Your task to perform on an android device: open sync settings in chrome Image 0: 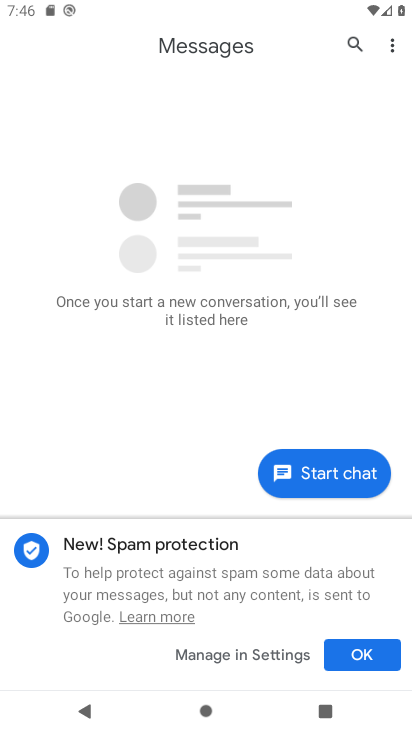
Step 0: press home button
Your task to perform on an android device: open sync settings in chrome Image 1: 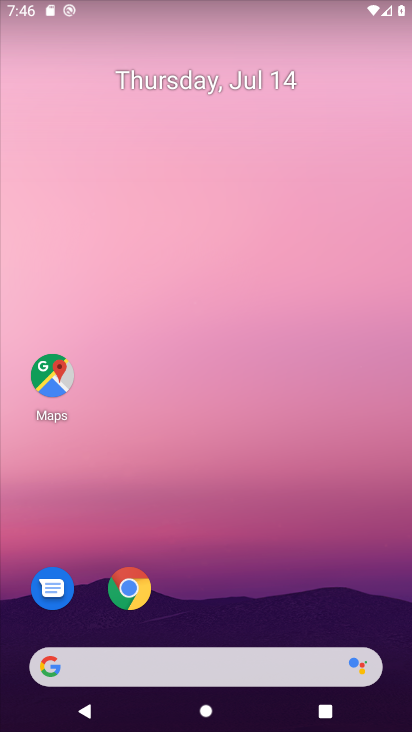
Step 1: drag from (174, 632) to (138, 49)
Your task to perform on an android device: open sync settings in chrome Image 2: 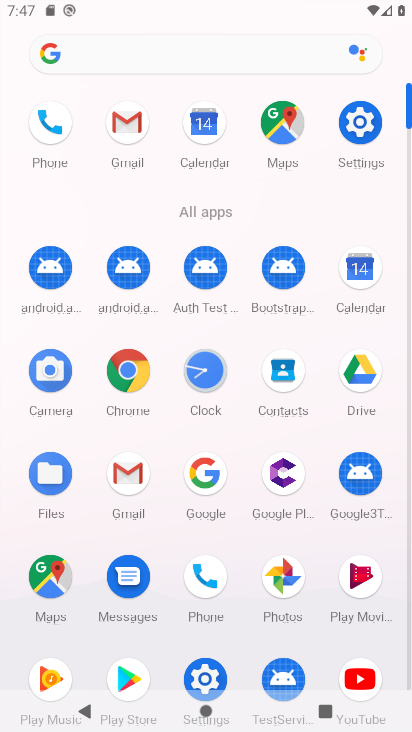
Step 2: click (128, 375)
Your task to perform on an android device: open sync settings in chrome Image 3: 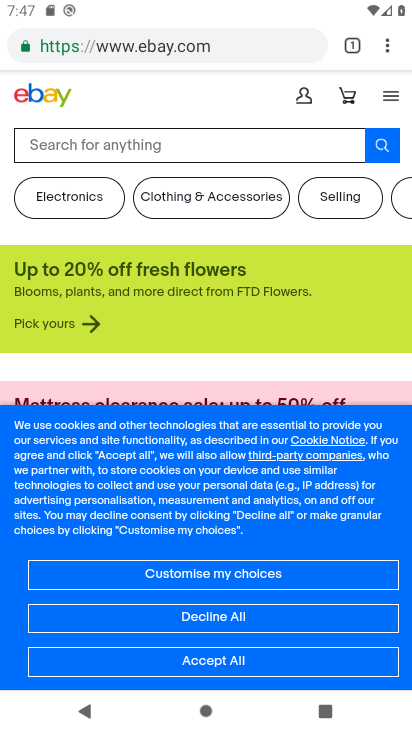
Step 3: drag from (385, 50) to (222, 550)
Your task to perform on an android device: open sync settings in chrome Image 4: 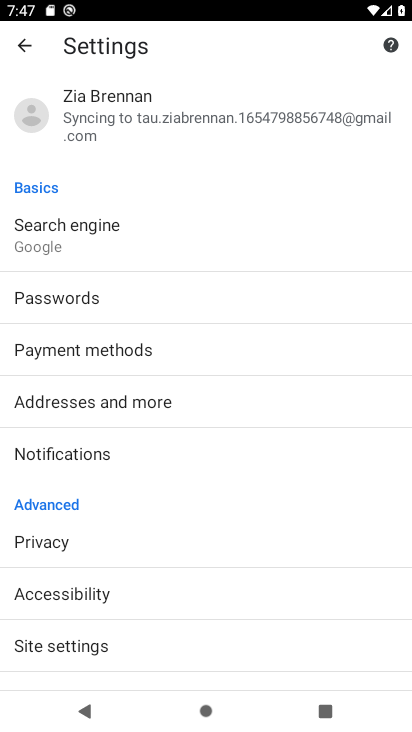
Step 4: click (95, 146)
Your task to perform on an android device: open sync settings in chrome Image 5: 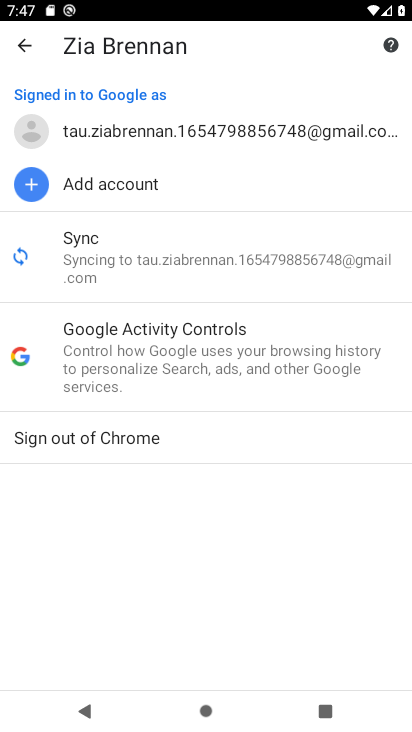
Step 5: click (114, 233)
Your task to perform on an android device: open sync settings in chrome Image 6: 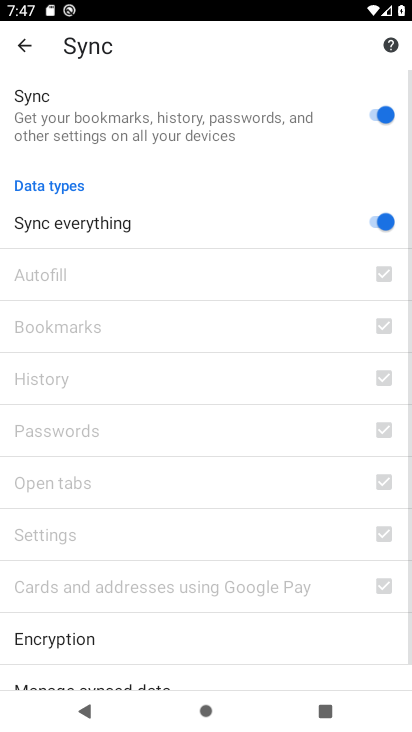
Step 6: task complete